Your task to perform on an android device: turn off airplane mode Image 0: 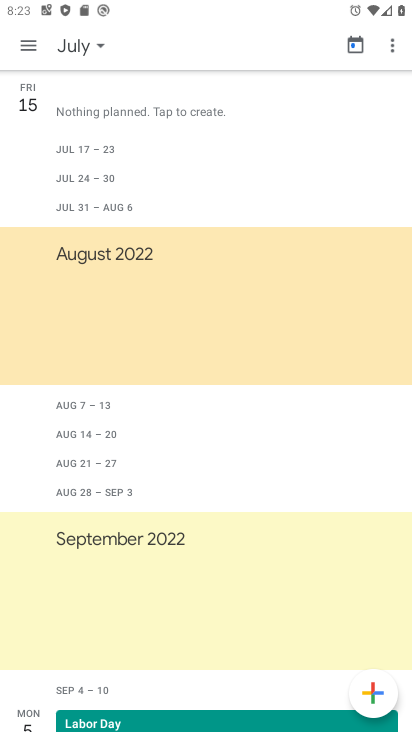
Step 0: press home button
Your task to perform on an android device: turn off airplane mode Image 1: 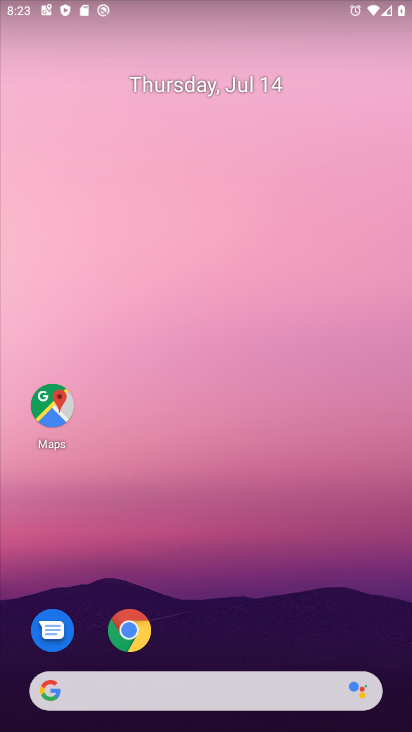
Step 1: drag from (237, 677) to (230, 198)
Your task to perform on an android device: turn off airplane mode Image 2: 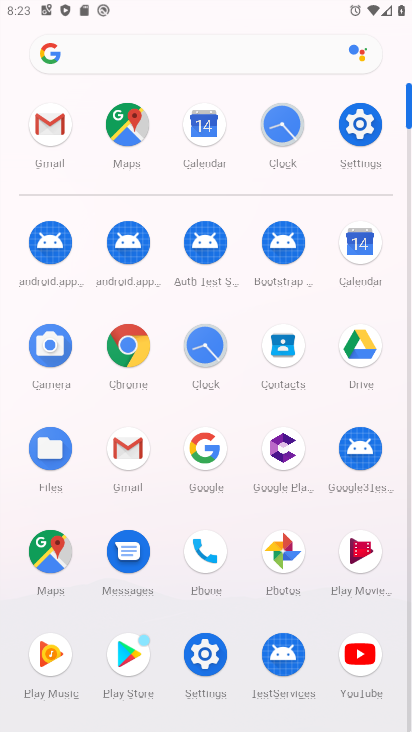
Step 2: click (361, 125)
Your task to perform on an android device: turn off airplane mode Image 3: 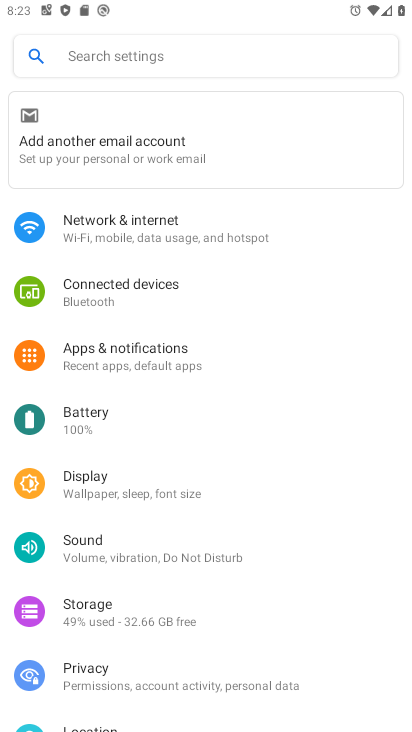
Step 3: click (133, 226)
Your task to perform on an android device: turn off airplane mode Image 4: 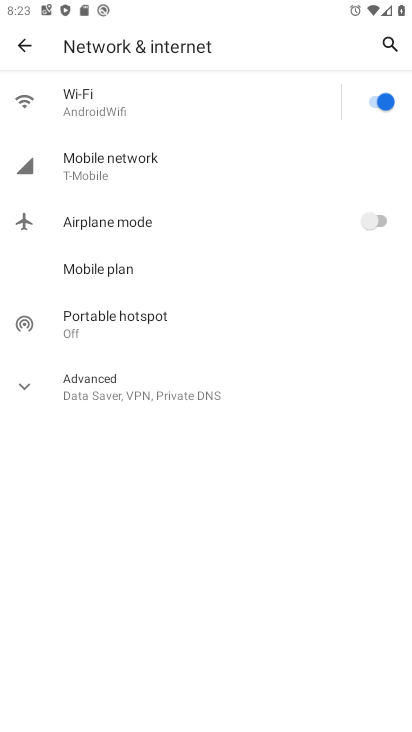
Step 4: task complete